Your task to perform on an android device: Open Android settings Image 0: 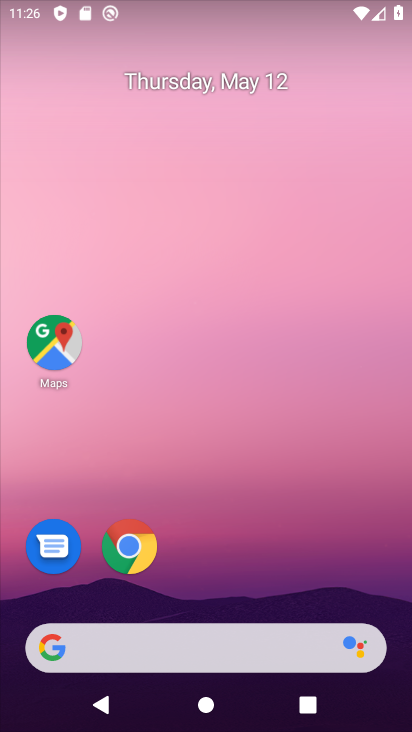
Step 0: drag from (236, 724) to (237, 82)
Your task to perform on an android device: Open Android settings Image 1: 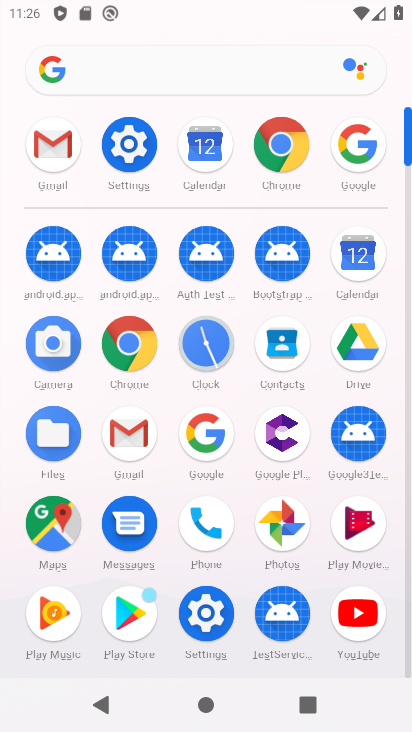
Step 1: click (128, 137)
Your task to perform on an android device: Open Android settings Image 2: 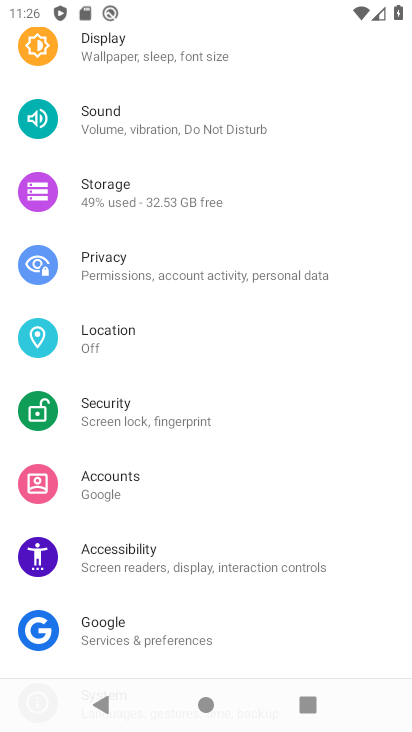
Step 2: task complete